Your task to perform on an android device: Open ESPN.com Image 0: 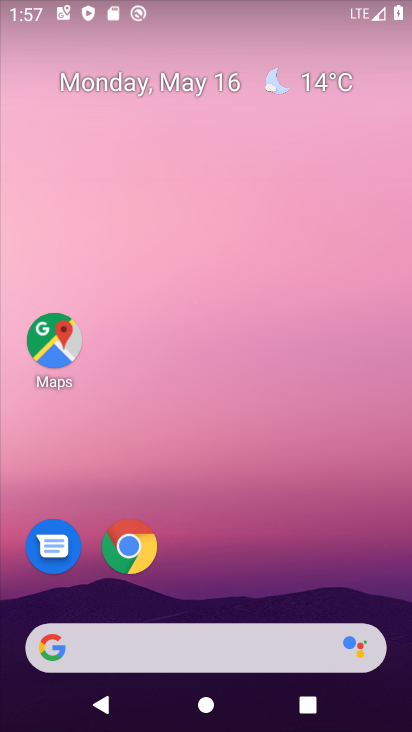
Step 0: drag from (267, 682) to (205, 307)
Your task to perform on an android device: Open ESPN.com Image 1: 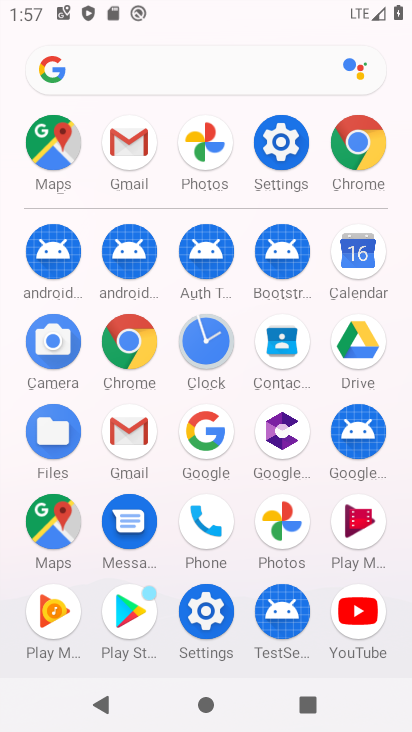
Step 1: click (343, 143)
Your task to perform on an android device: Open ESPN.com Image 2: 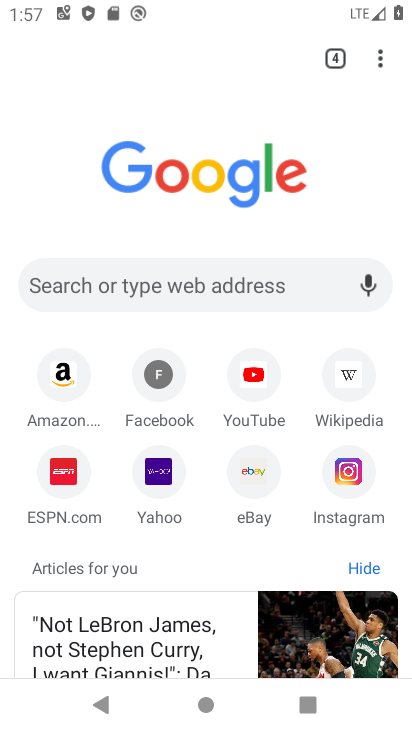
Step 2: click (125, 288)
Your task to perform on an android device: Open ESPN.com Image 3: 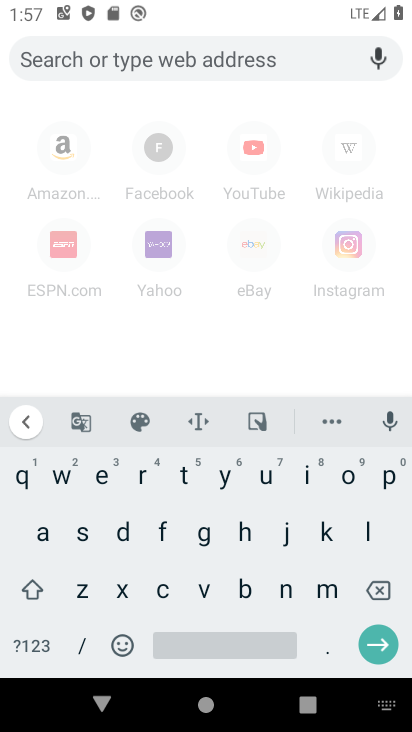
Step 3: click (97, 482)
Your task to perform on an android device: Open ESPN.com Image 4: 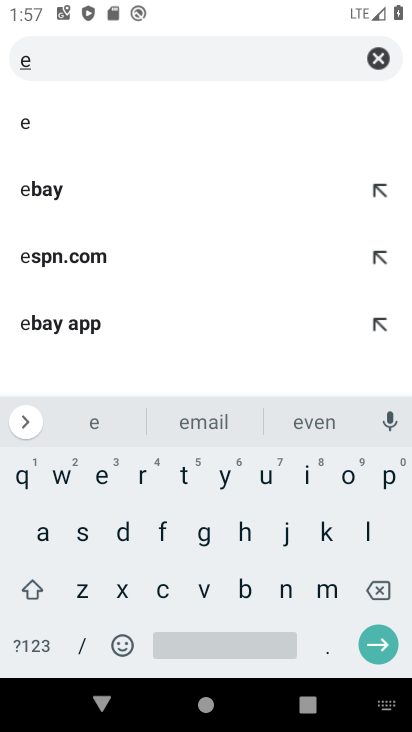
Step 4: click (111, 263)
Your task to perform on an android device: Open ESPN.com Image 5: 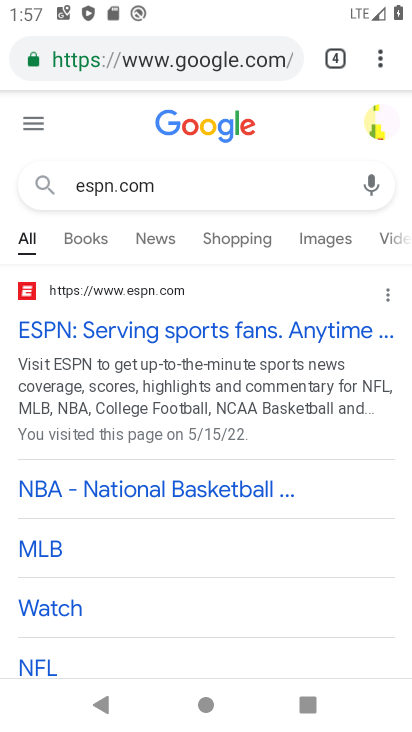
Step 5: click (83, 326)
Your task to perform on an android device: Open ESPN.com Image 6: 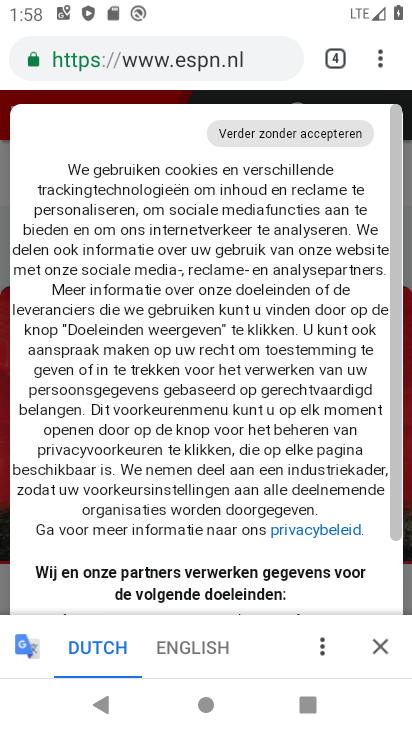
Step 6: drag from (228, 364) to (242, 212)
Your task to perform on an android device: Open ESPN.com Image 7: 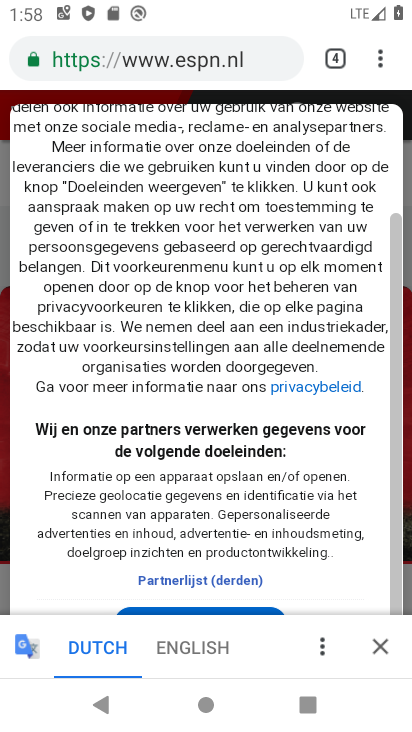
Step 7: drag from (205, 491) to (232, 224)
Your task to perform on an android device: Open ESPN.com Image 8: 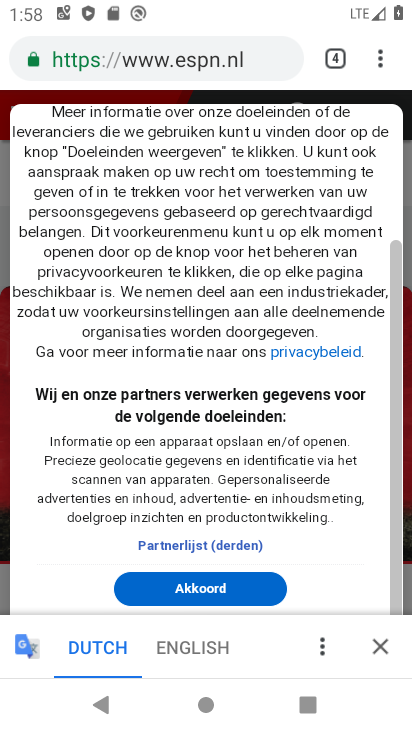
Step 8: click (205, 581)
Your task to perform on an android device: Open ESPN.com Image 9: 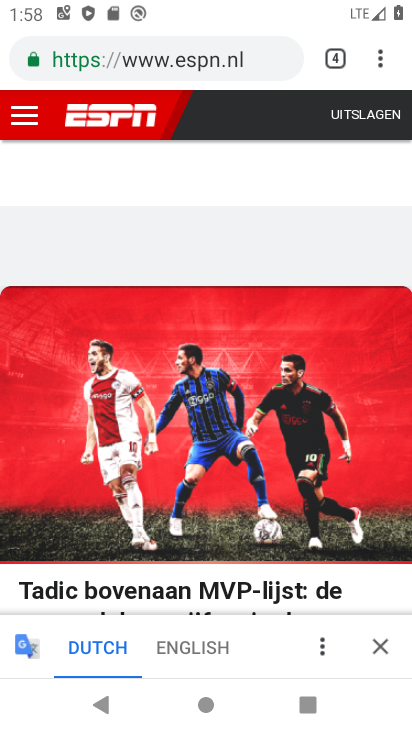
Step 9: task complete